Your task to perform on an android device: change the clock style Image 0: 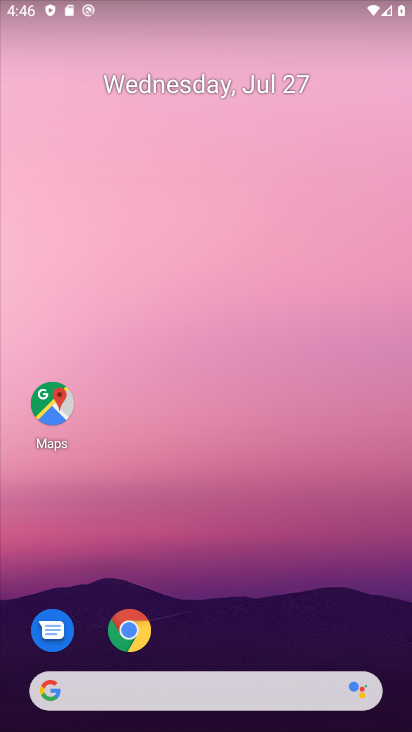
Step 0: drag from (275, 636) to (219, 211)
Your task to perform on an android device: change the clock style Image 1: 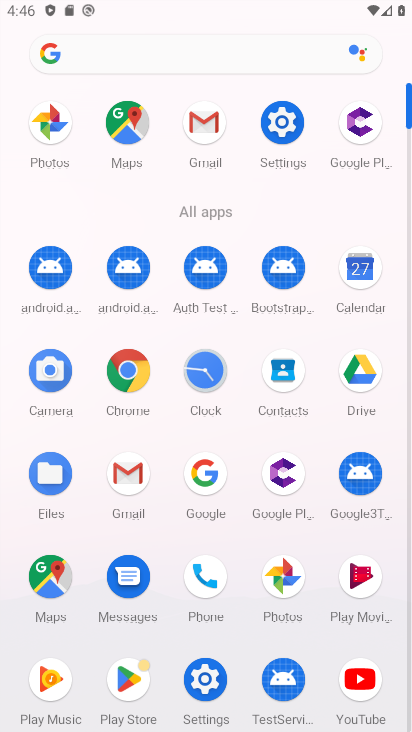
Step 1: click (206, 361)
Your task to perform on an android device: change the clock style Image 2: 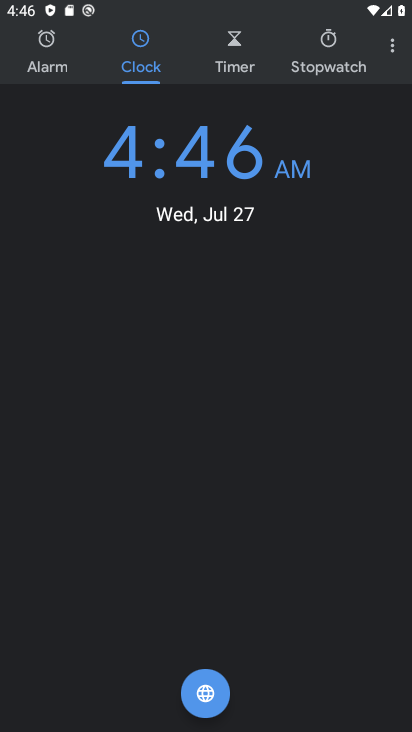
Step 2: click (395, 36)
Your task to perform on an android device: change the clock style Image 3: 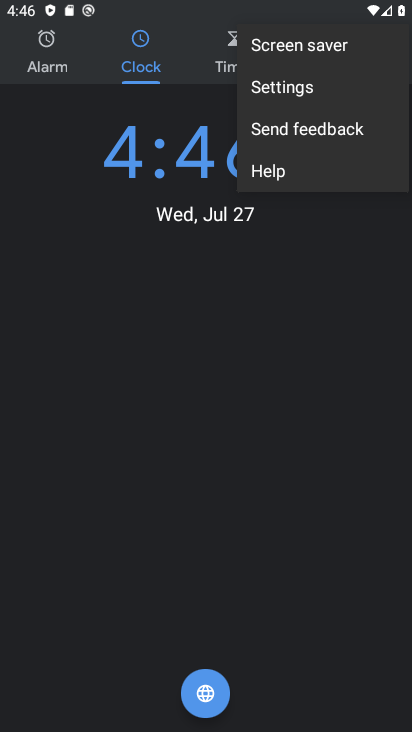
Step 3: click (350, 81)
Your task to perform on an android device: change the clock style Image 4: 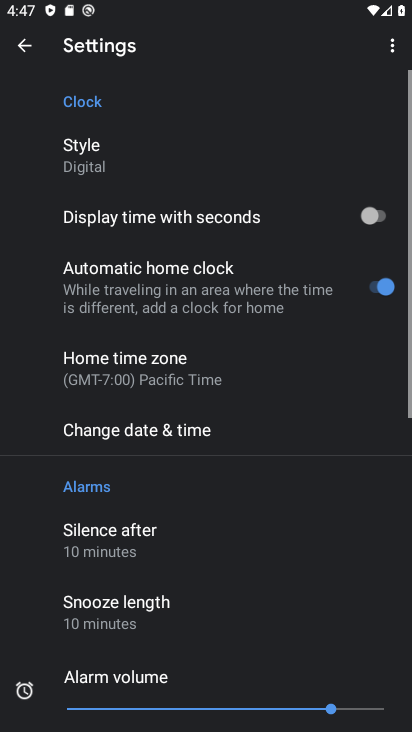
Step 4: click (221, 157)
Your task to perform on an android device: change the clock style Image 5: 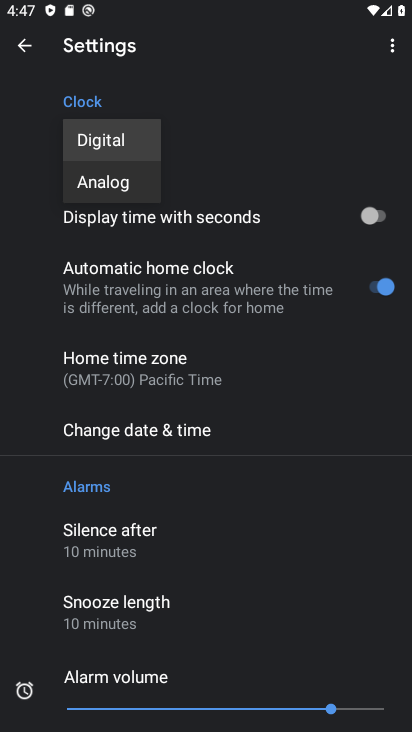
Step 5: click (134, 185)
Your task to perform on an android device: change the clock style Image 6: 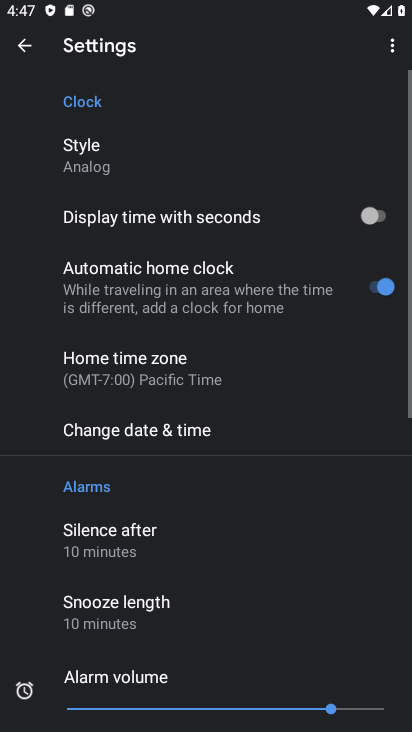
Step 6: task complete